Your task to perform on an android device: see tabs open on other devices in the chrome app Image 0: 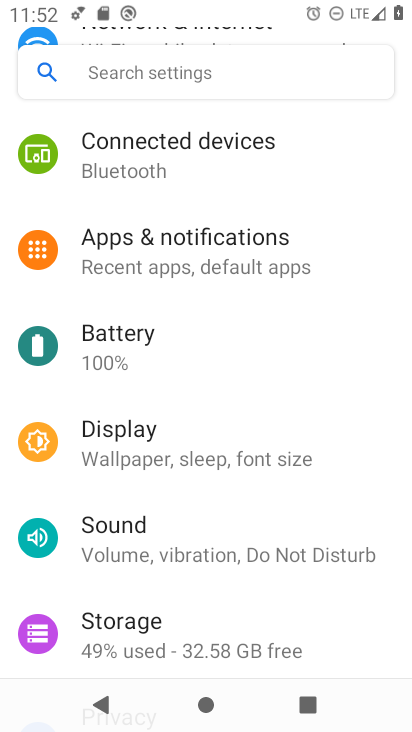
Step 0: press back button
Your task to perform on an android device: see tabs open on other devices in the chrome app Image 1: 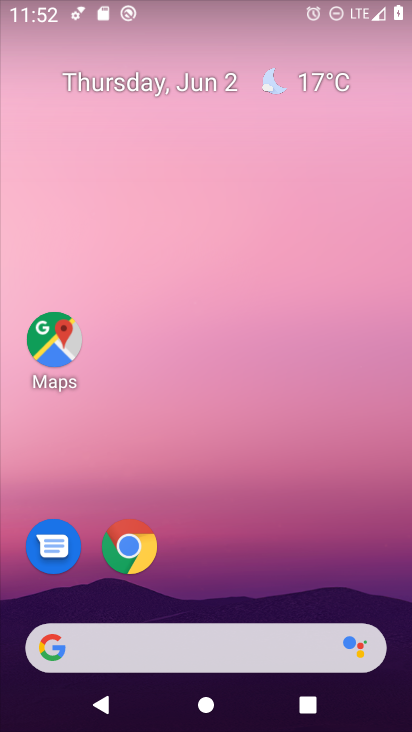
Step 1: drag from (242, 564) to (193, 49)
Your task to perform on an android device: see tabs open on other devices in the chrome app Image 2: 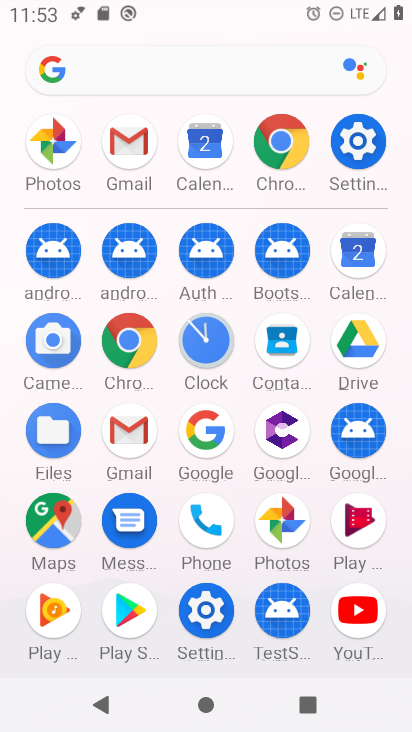
Step 2: drag from (8, 621) to (13, 380)
Your task to perform on an android device: see tabs open on other devices in the chrome app Image 3: 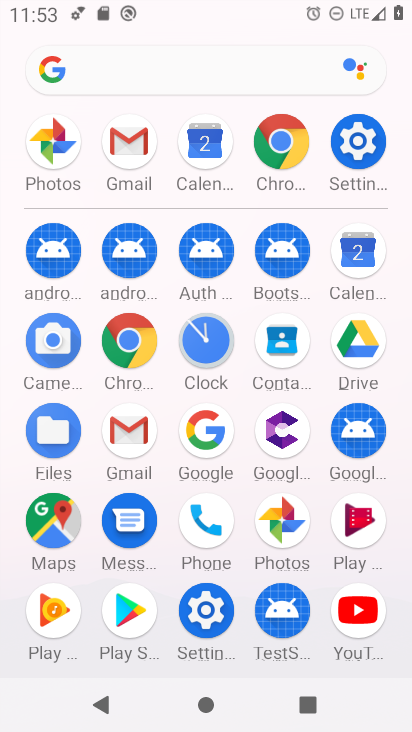
Step 3: click (128, 337)
Your task to perform on an android device: see tabs open on other devices in the chrome app Image 4: 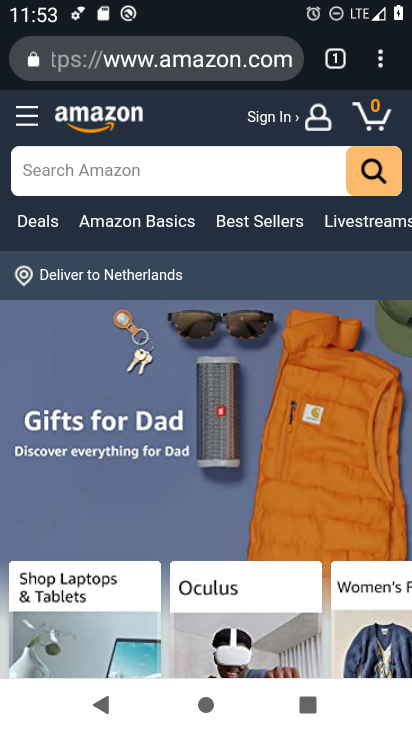
Step 4: task complete